Your task to perform on an android device: turn off smart reply in the gmail app Image 0: 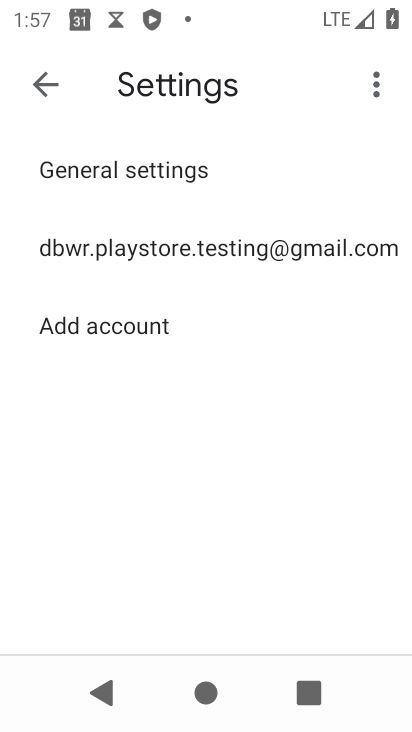
Step 0: press back button
Your task to perform on an android device: turn off smart reply in the gmail app Image 1: 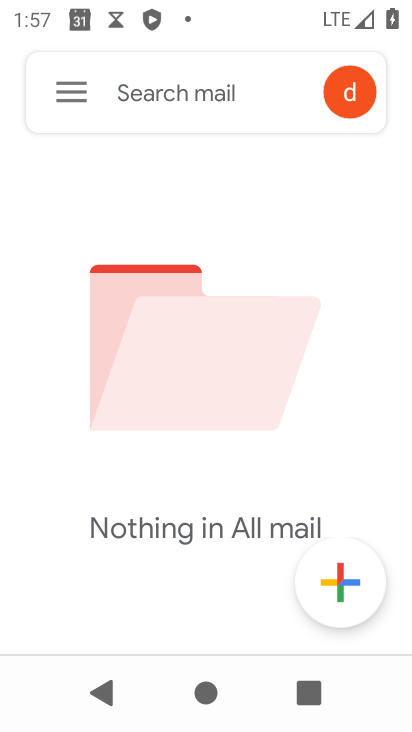
Step 1: click (79, 87)
Your task to perform on an android device: turn off smart reply in the gmail app Image 2: 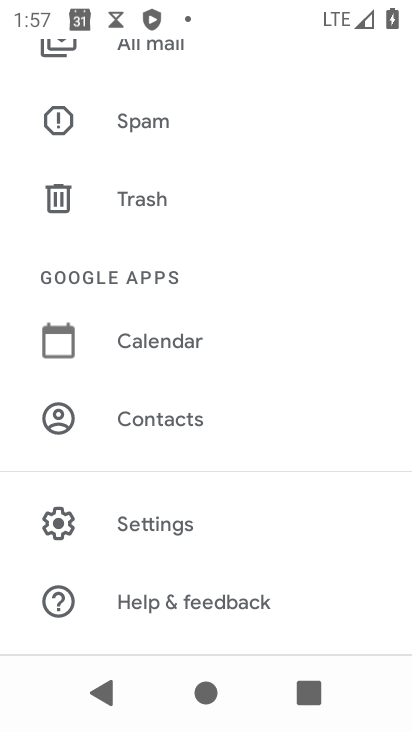
Step 2: click (185, 522)
Your task to perform on an android device: turn off smart reply in the gmail app Image 3: 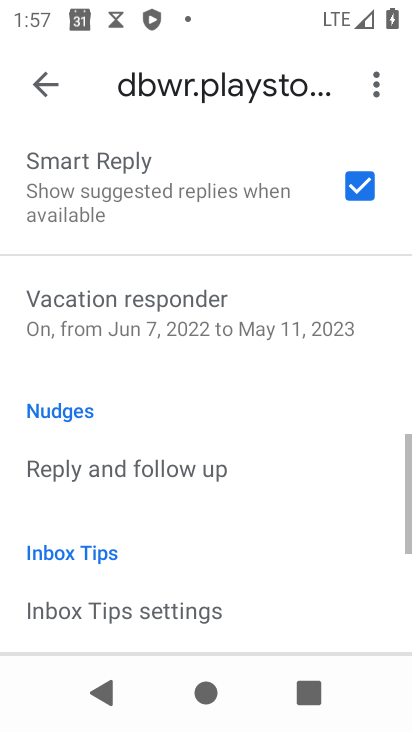
Step 3: drag from (164, 465) to (148, 624)
Your task to perform on an android device: turn off smart reply in the gmail app Image 4: 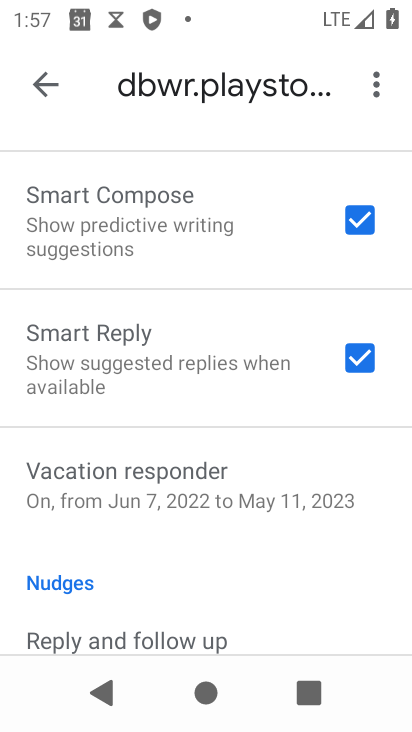
Step 4: click (362, 347)
Your task to perform on an android device: turn off smart reply in the gmail app Image 5: 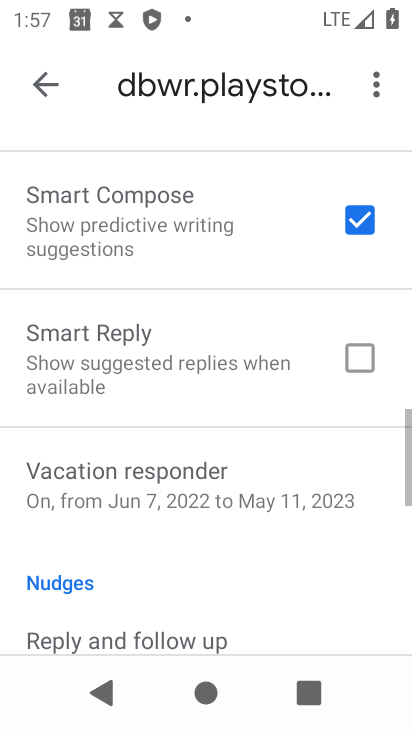
Step 5: task complete